Your task to perform on an android device: set default search engine in the chrome app Image 0: 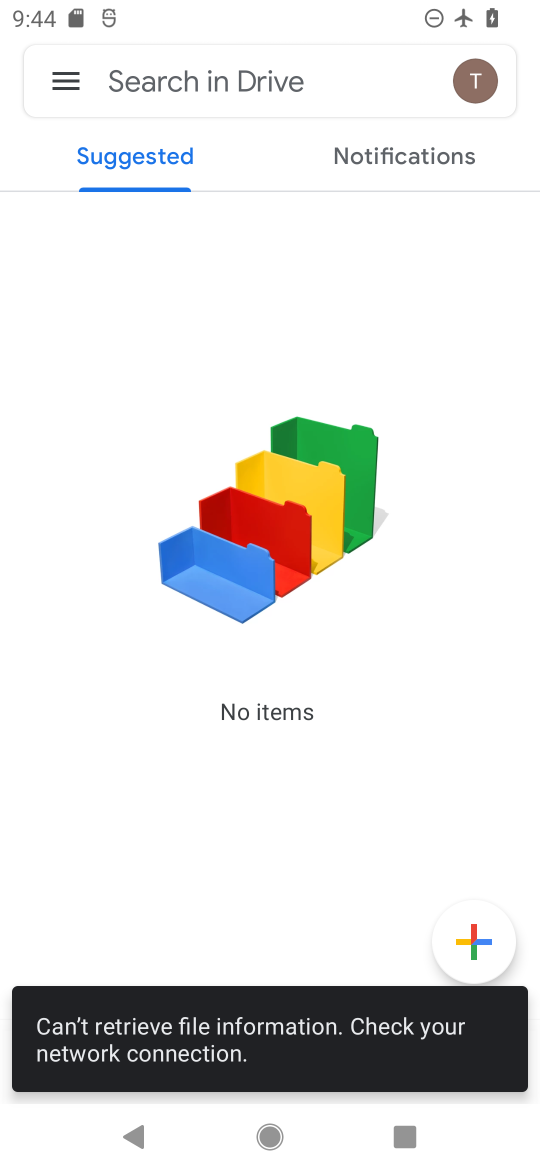
Step 0: press home button
Your task to perform on an android device: set default search engine in the chrome app Image 1: 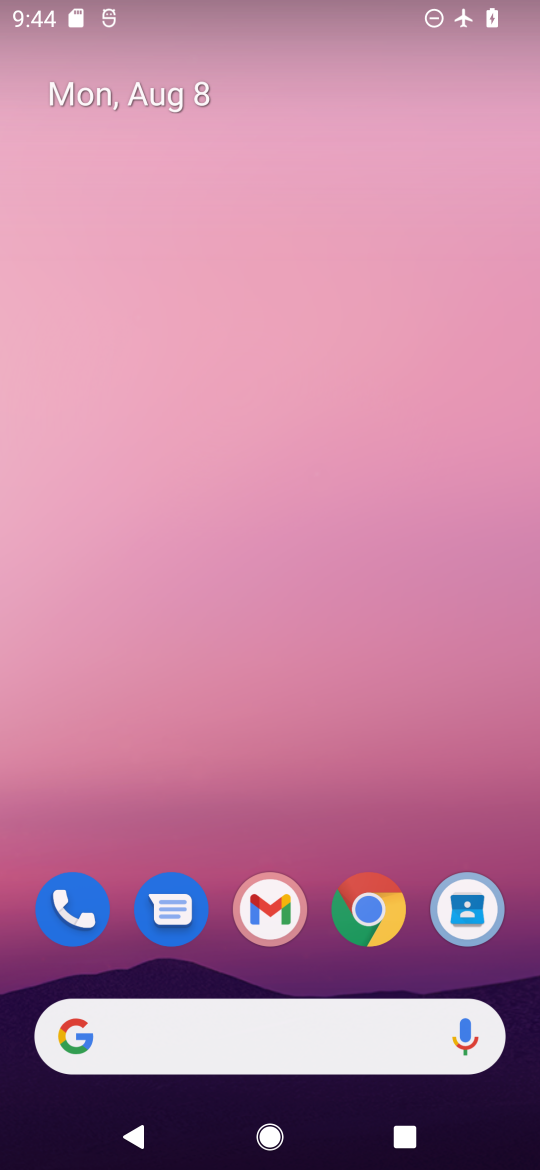
Step 1: drag from (429, 972) to (234, 1)
Your task to perform on an android device: set default search engine in the chrome app Image 2: 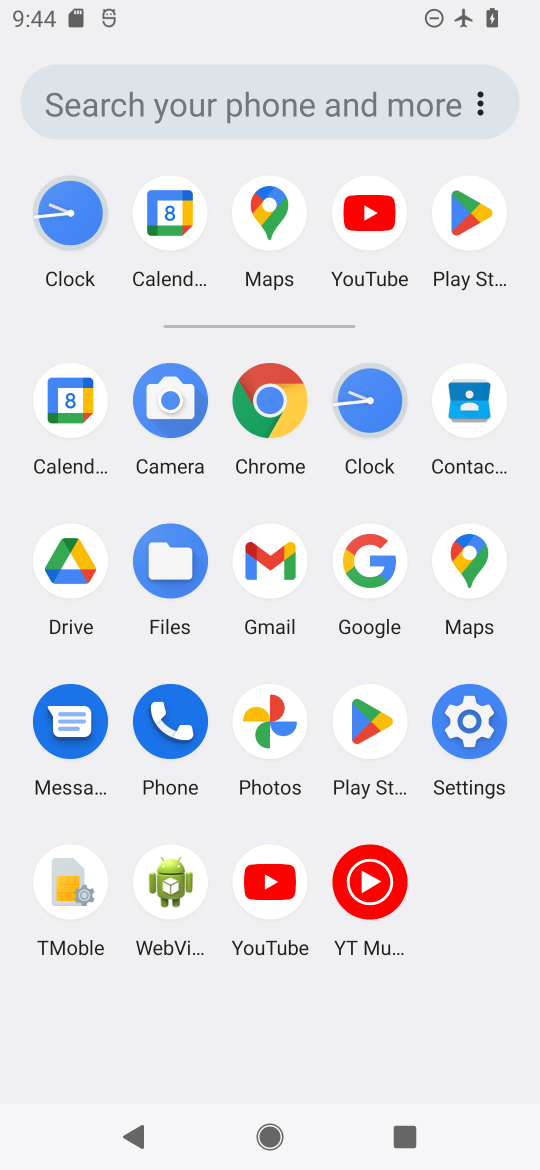
Step 2: click (256, 442)
Your task to perform on an android device: set default search engine in the chrome app Image 3: 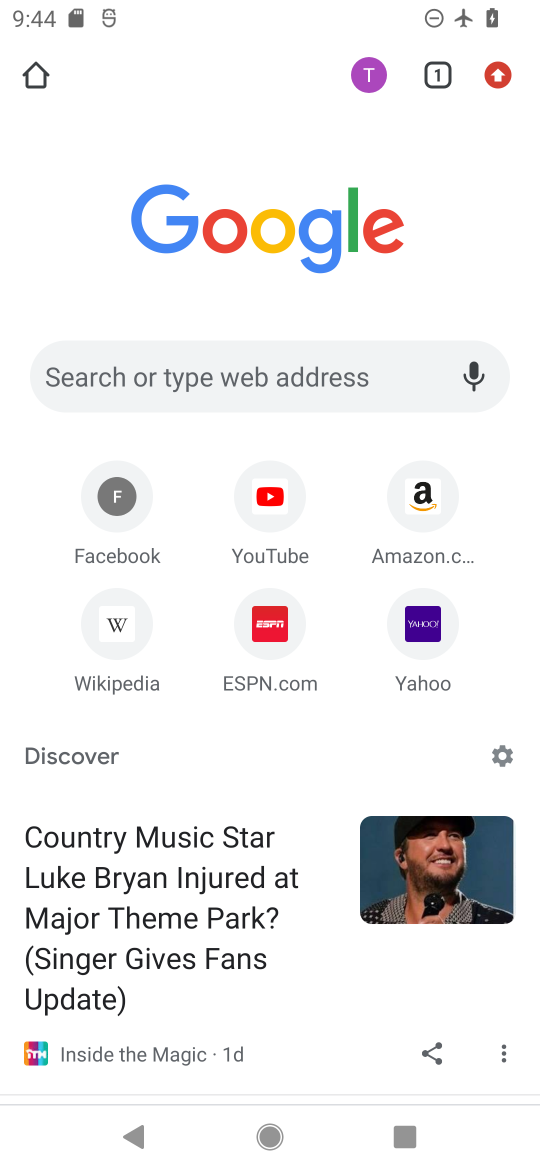
Step 3: click (492, 80)
Your task to perform on an android device: set default search engine in the chrome app Image 4: 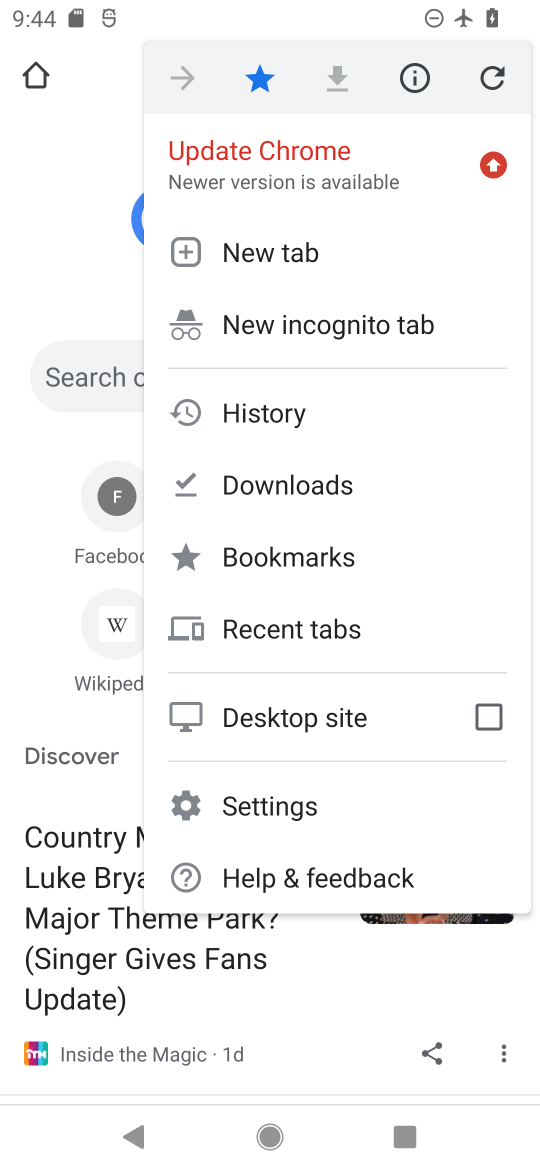
Step 4: click (249, 795)
Your task to perform on an android device: set default search engine in the chrome app Image 5: 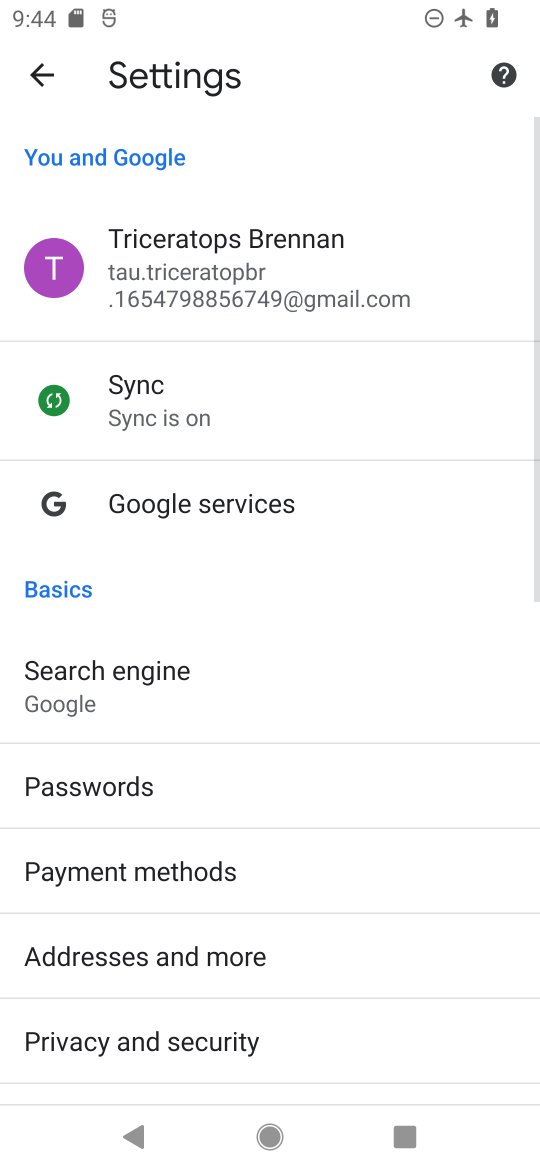
Step 5: click (71, 673)
Your task to perform on an android device: set default search engine in the chrome app Image 6: 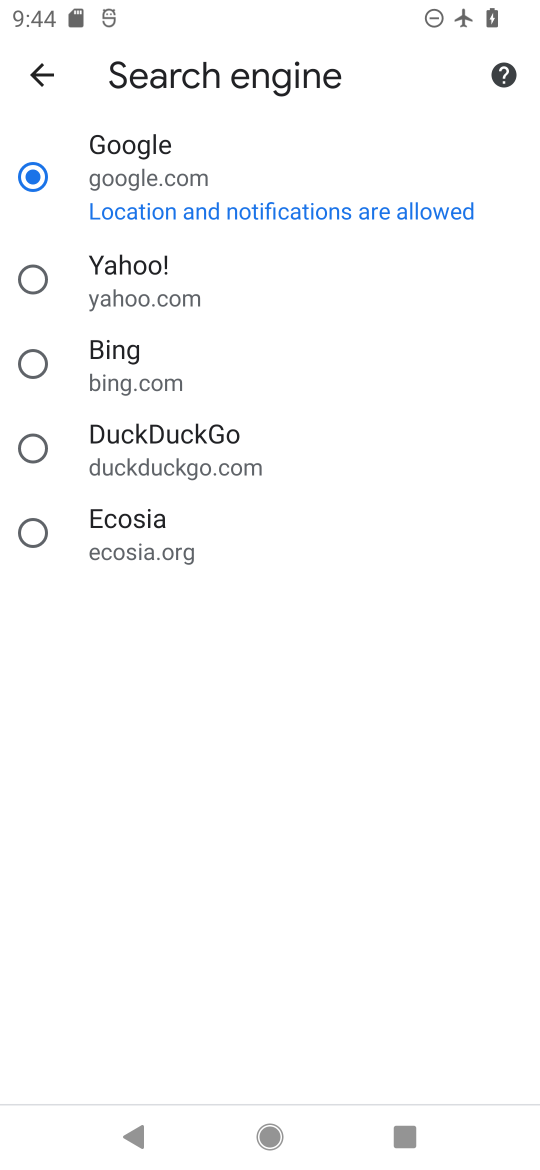
Step 6: click (92, 430)
Your task to perform on an android device: set default search engine in the chrome app Image 7: 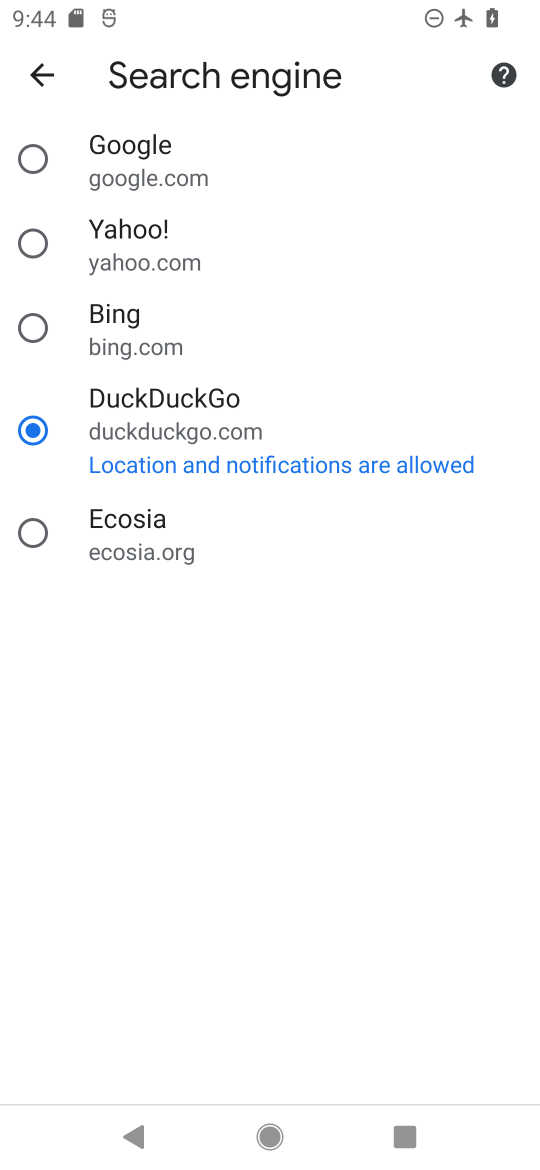
Step 7: task complete